Your task to perform on an android device: Go to notification settings Image 0: 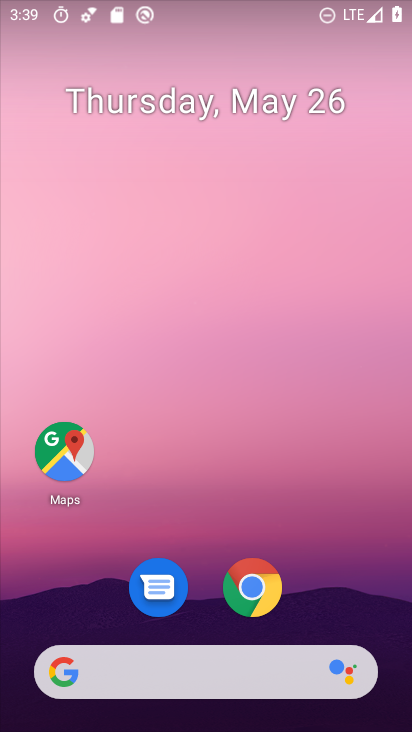
Step 0: drag from (334, 489) to (320, 216)
Your task to perform on an android device: Go to notification settings Image 1: 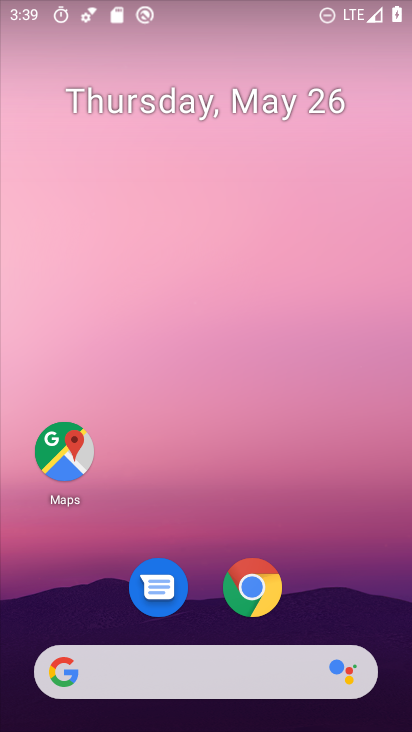
Step 1: drag from (330, 542) to (315, 160)
Your task to perform on an android device: Go to notification settings Image 2: 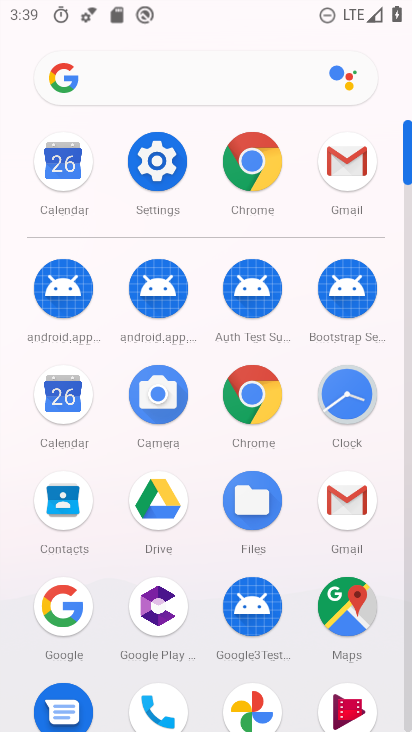
Step 2: click (168, 167)
Your task to perform on an android device: Go to notification settings Image 3: 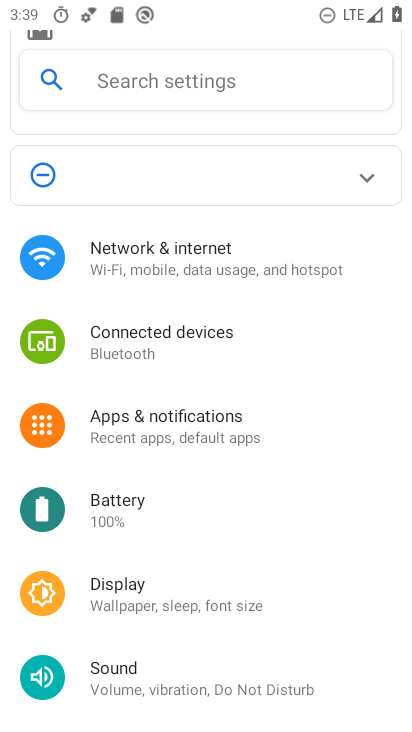
Step 3: click (201, 426)
Your task to perform on an android device: Go to notification settings Image 4: 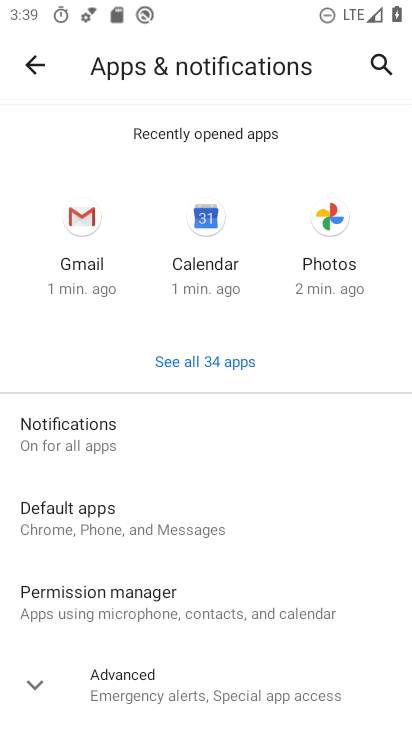
Step 4: click (187, 434)
Your task to perform on an android device: Go to notification settings Image 5: 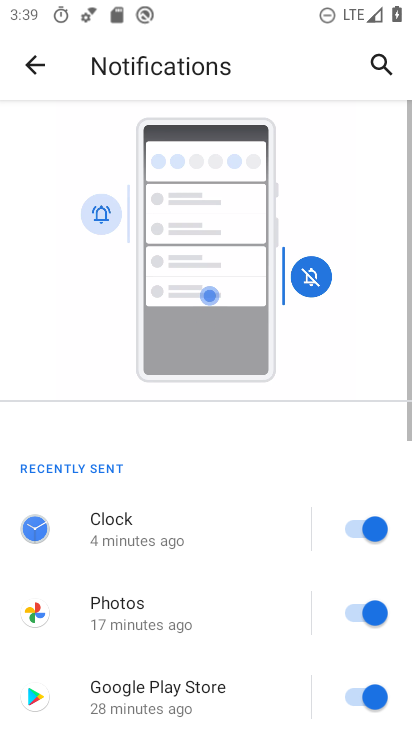
Step 5: drag from (188, 447) to (217, 84)
Your task to perform on an android device: Go to notification settings Image 6: 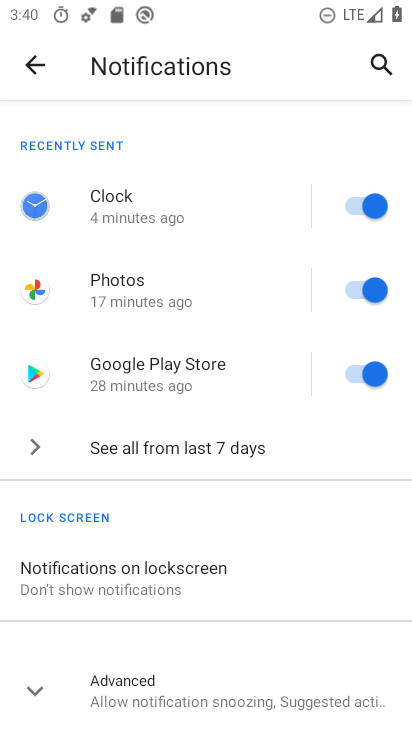
Step 6: drag from (196, 595) to (298, 189)
Your task to perform on an android device: Go to notification settings Image 7: 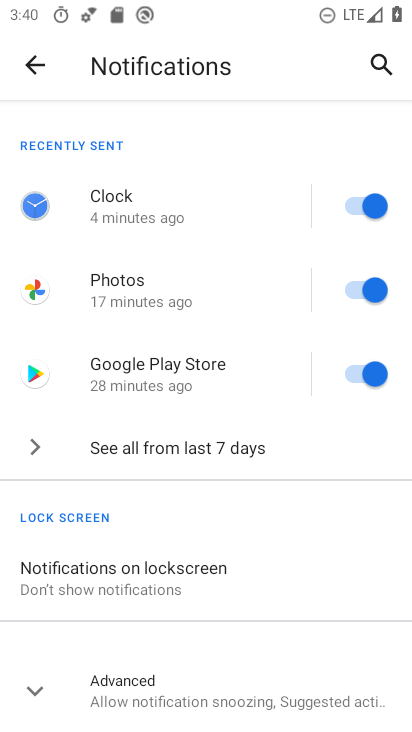
Step 7: click (222, 713)
Your task to perform on an android device: Go to notification settings Image 8: 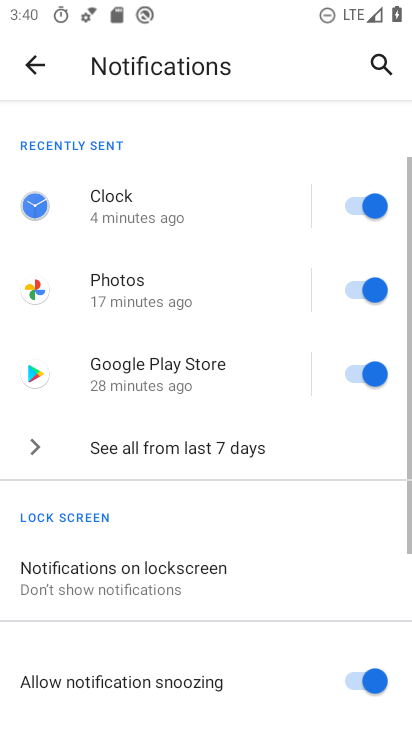
Step 8: task complete